Your task to perform on an android device: Open the phone app and click the voicemail tab. Image 0: 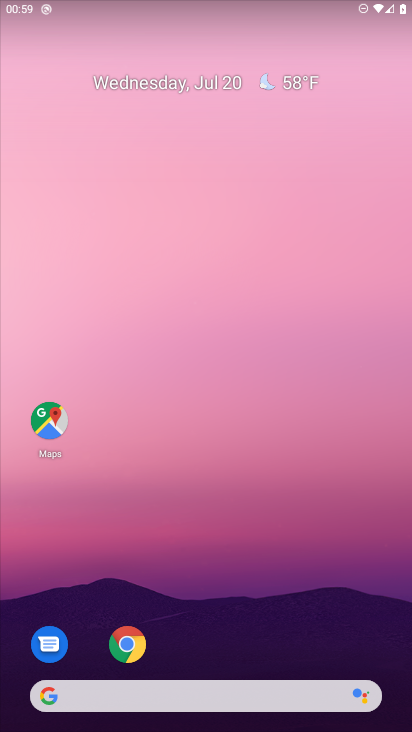
Step 0: drag from (19, 702) to (195, 249)
Your task to perform on an android device: Open the phone app and click the voicemail tab. Image 1: 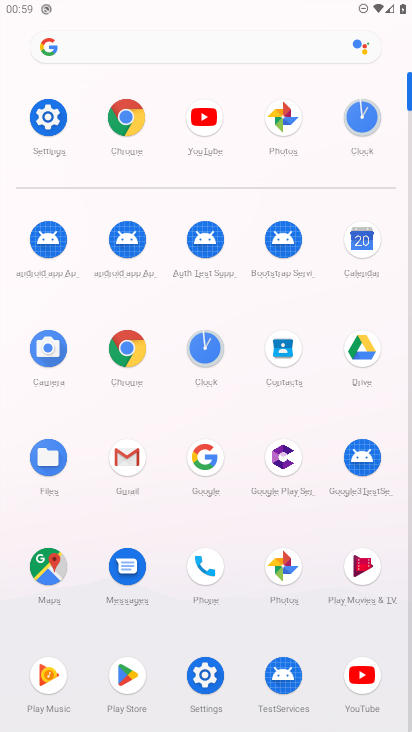
Step 1: click (207, 565)
Your task to perform on an android device: Open the phone app and click the voicemail tab. Image 2: 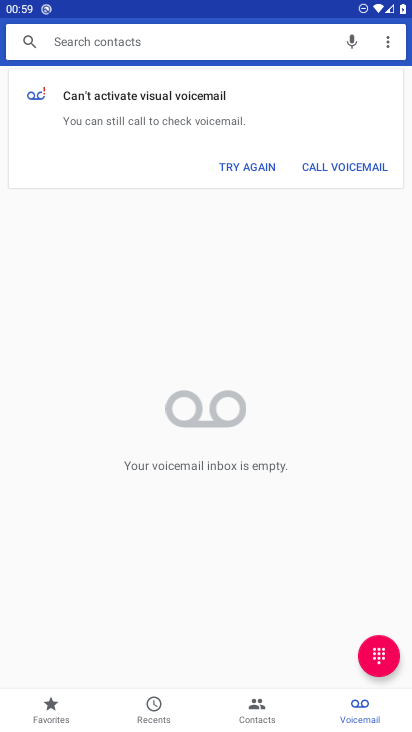
Step 2: task complete